Your task to perform on an android device: check google app version Image 0: 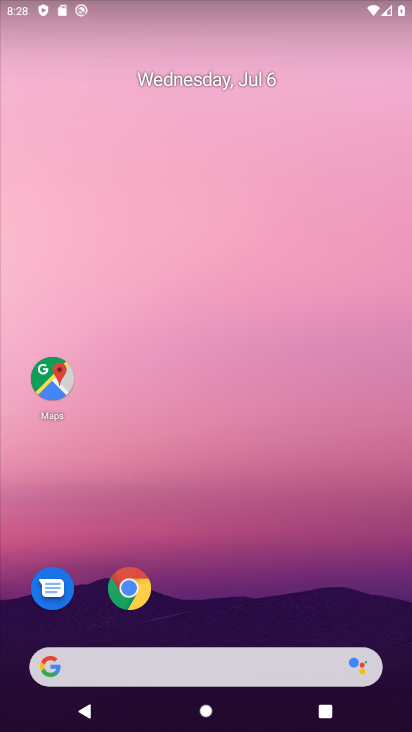
Step 0: drag from (147, 621) to (204, 243)
Your task to perform on an android device: check google app version Image 1: 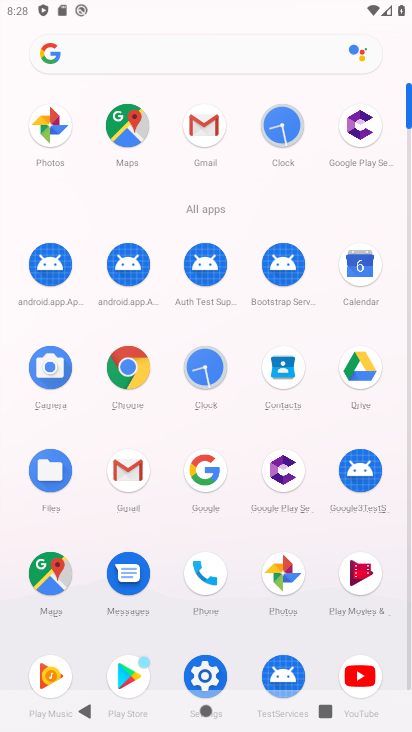
Step 1: click (199, 476)
Your task to perform on an android device: check google app version Image 2: 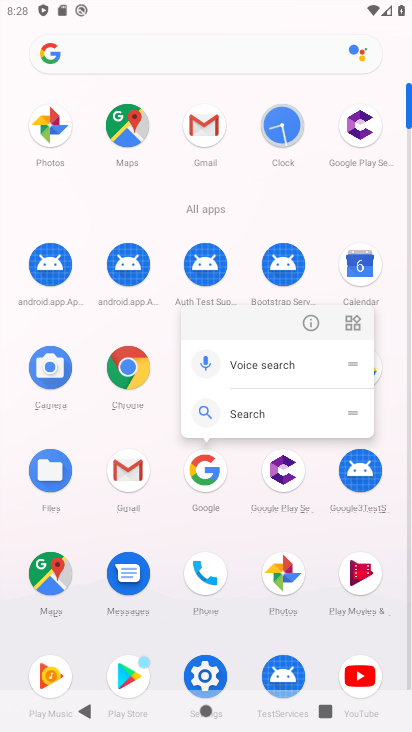
Step 2: click (314, 328)
Your task to perform on an android device: check google app version Image 3: 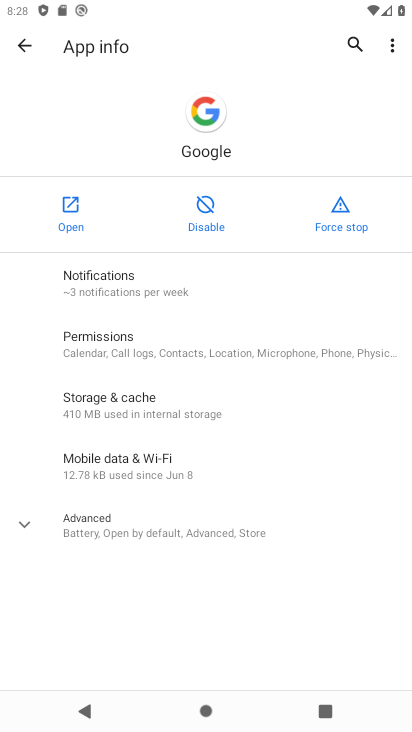
Step 3: click (69, 218)
Your task to perform on an android device: check google app version Image 4: 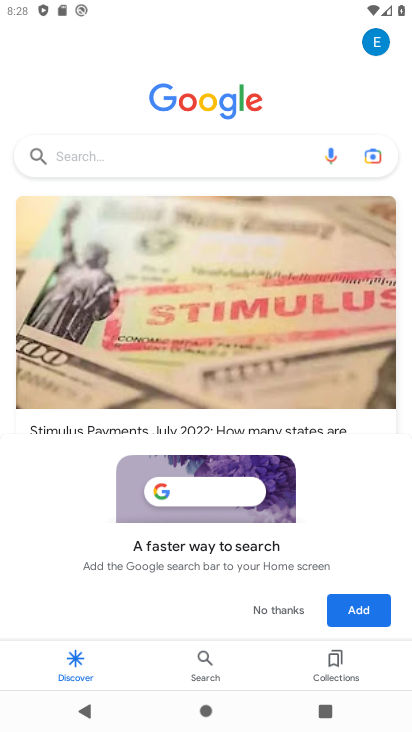
Step 4: drag from (338, 509) to (322, 141)
Your task to perform on an android device: check google app version Image 5: 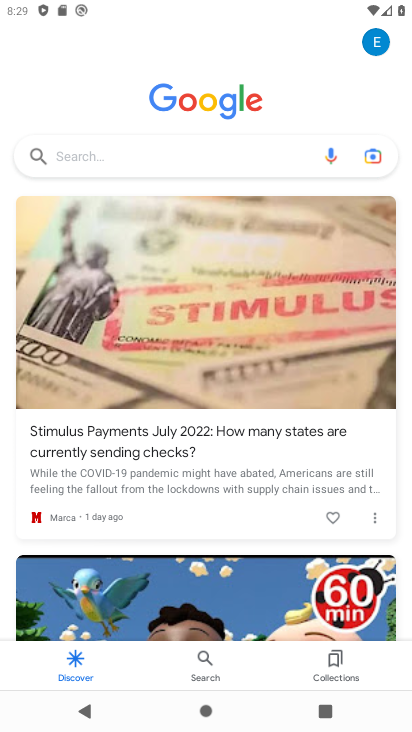
Step 5: click (375, 40)
Your task to perform on an android device: check google app version Image 6: 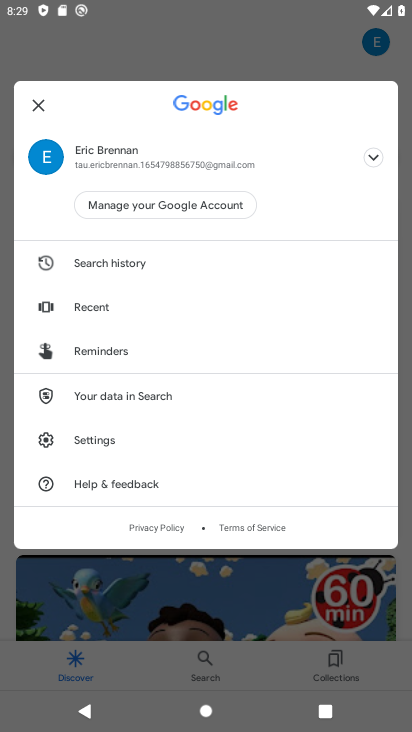
Step 6: click (105, 439)
Your task to perform on an android device: check google app version Image 7: 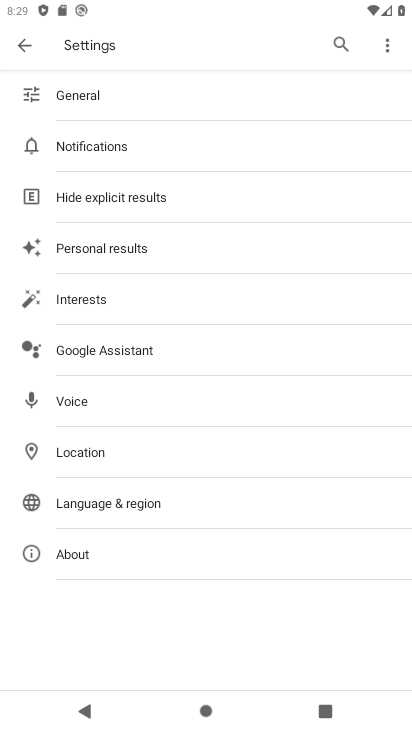
Step 7: click (138, 109)
Your task to perform on an android device: check google app version Image 8: 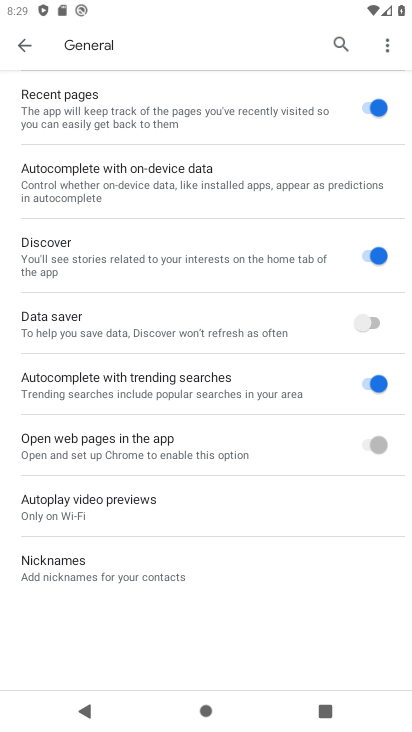
Step 8: click (26, 45)
Your task to perform on an android device: check google app version Image 9: 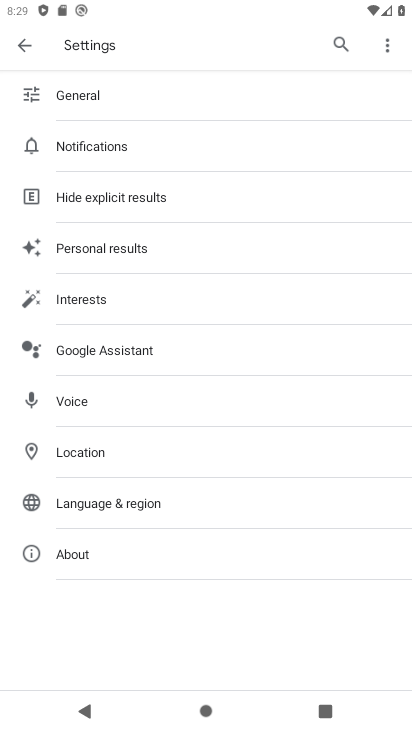
Step 9: click (77, 556)
Your task to perform on an android device: check google app version Image 10: 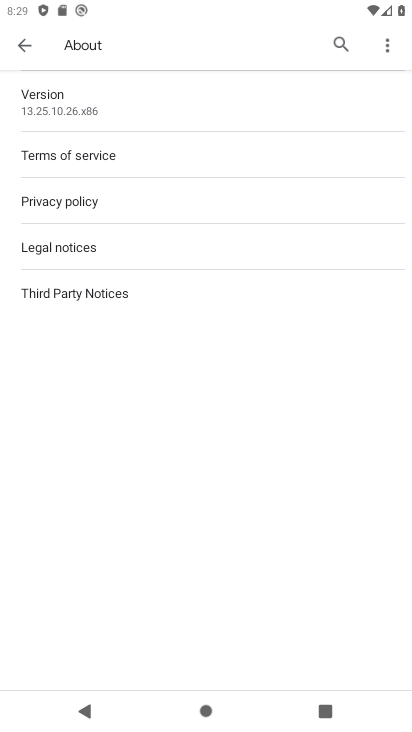
Step 10: click (129, 110)
Your task to perform on an android device: check google app version Image 11: 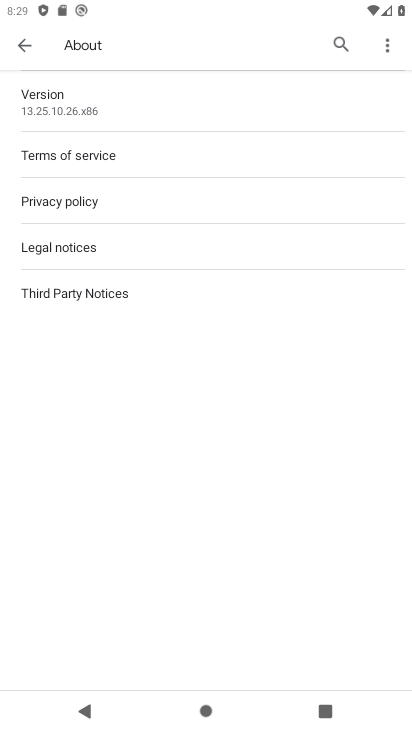
Step 11: task complete